Your task to perform on an android device: change the clock display to digital Image 0: 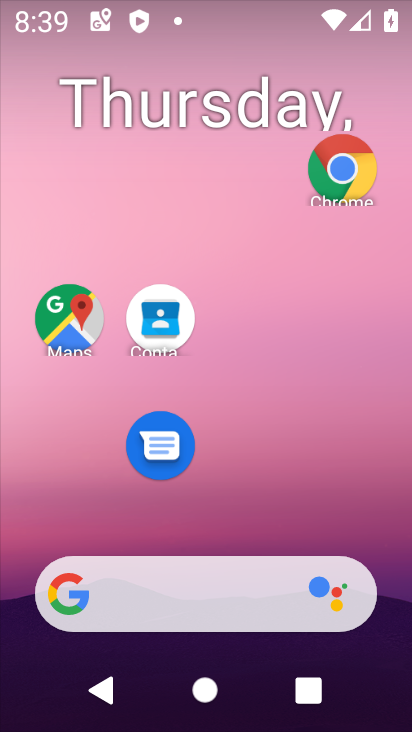
Step 0: drag from (292, 542) to (297, 309)
Your task to perform on an android device: change the clock display to digital Image 1: 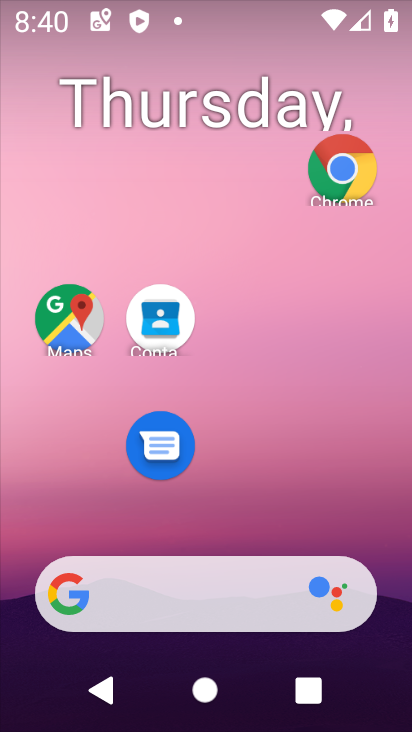
Step 1: drag from (278, 566) to (241, 202)
Your task to perform on an android device: change the clock display to digital Image 2: 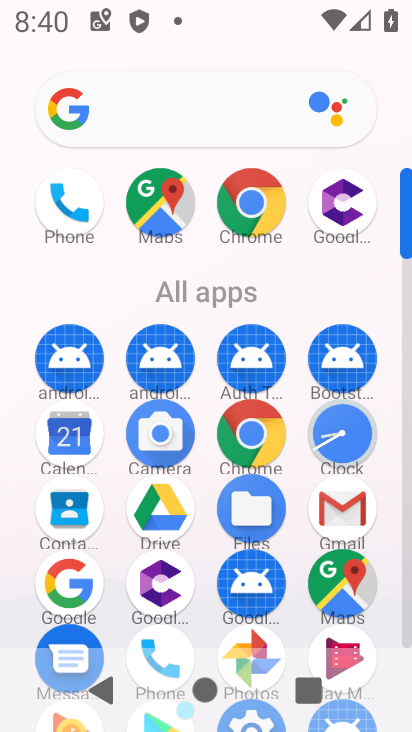
Step 2: click (350, 436)
Your task to perform on an android device: change the clock display to digital Image 3: 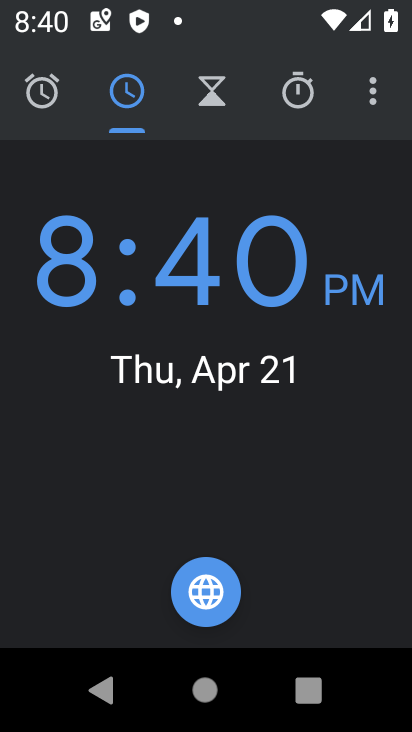
Step 3: click (380, 94)
Your task to perform on an android device: change the clock display to digital Image 4: 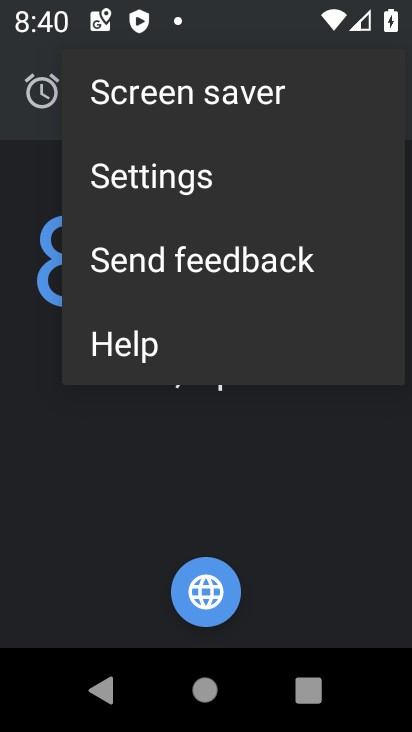
Step 4: click (171, 168)
Your task to perform on an android device: change the clock display to digital Image 5: 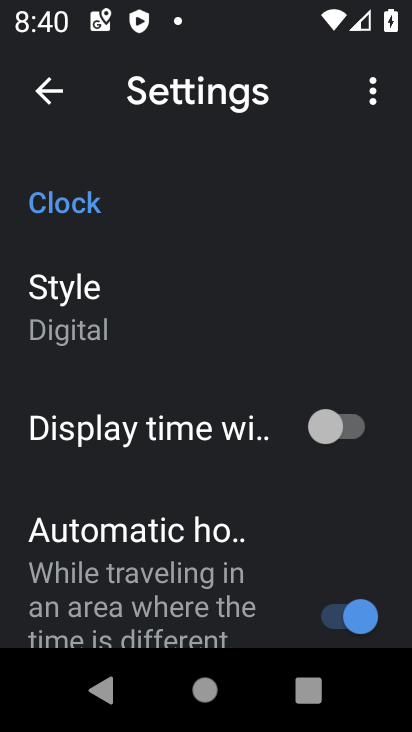
Step 5: click (79, 315)
Your task to perform on an android device: change the clock display to digital Image 6: 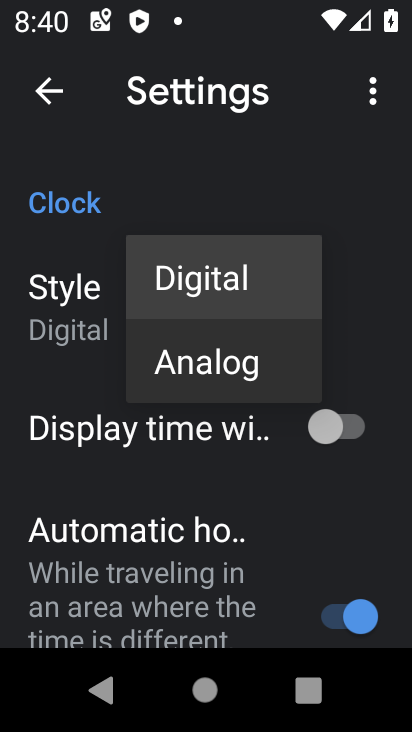
Step 6: click (205, 297)
Your task to perform on an android device: change the clock display to digital Image 7: 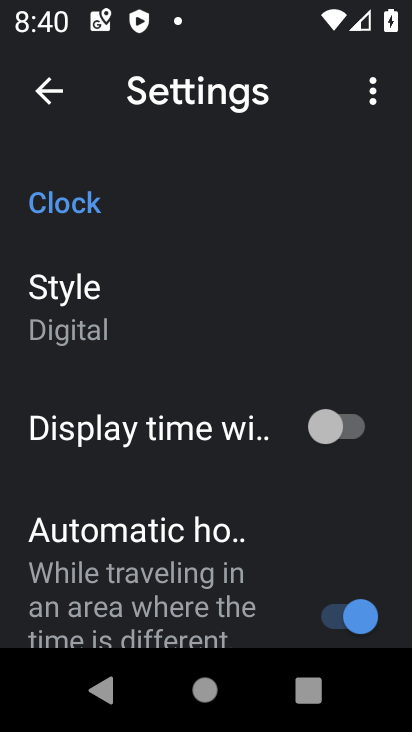
Step 7: task complete